Your task to perform on an android device: change alarm snooze length Image 0: 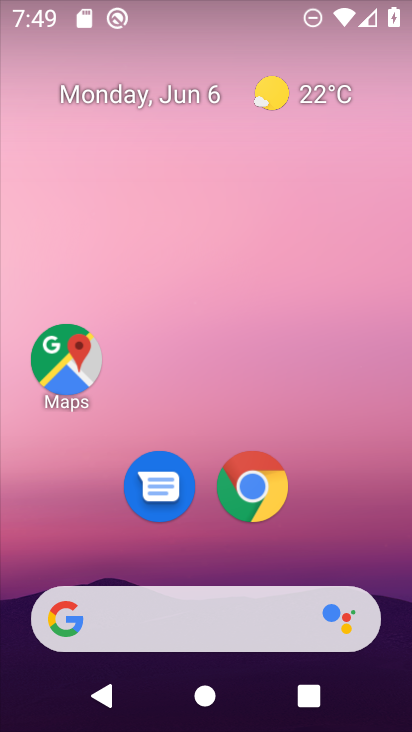
Step 0: drag from (389, 627) to (272, 72)
Your task to perform on an android device: change alarm snooze length Image 1: 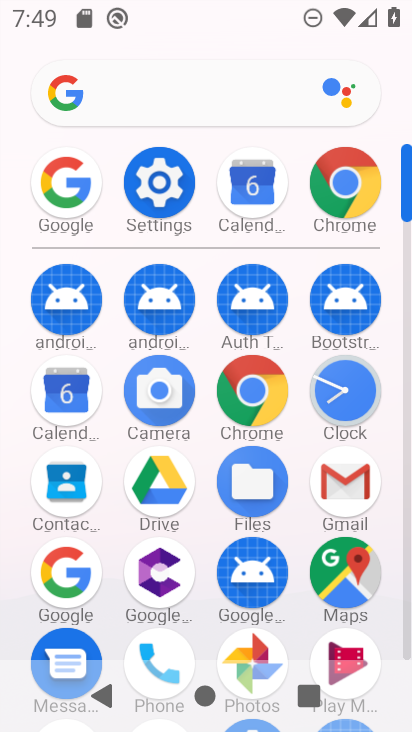
Step 1: click (360, 396)
Your task to perform on an android device: change alarm snooze length Image 2: 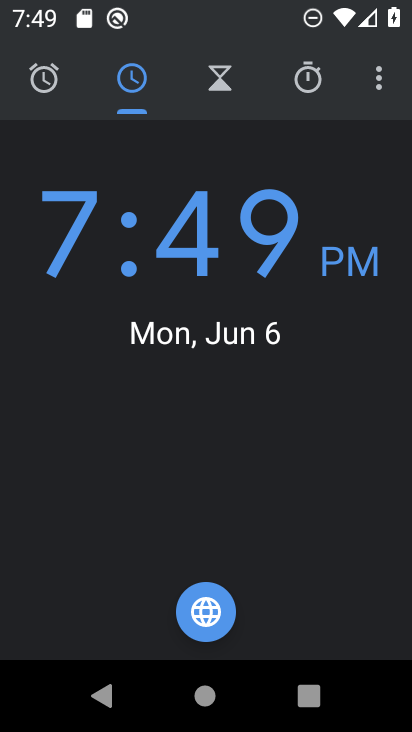
Step 2: click (376, 66)
Your task to perform on an android device: change alarm snooze length Image 3: 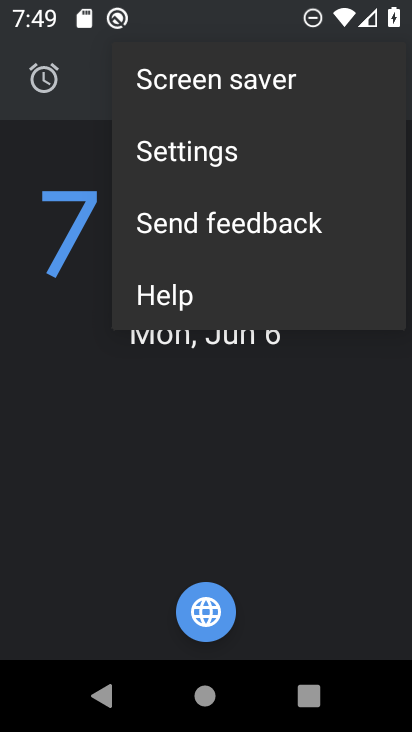
Step 3: click (184, 137)
Your task to perform on an android device: change alarm snooze length Image 4: 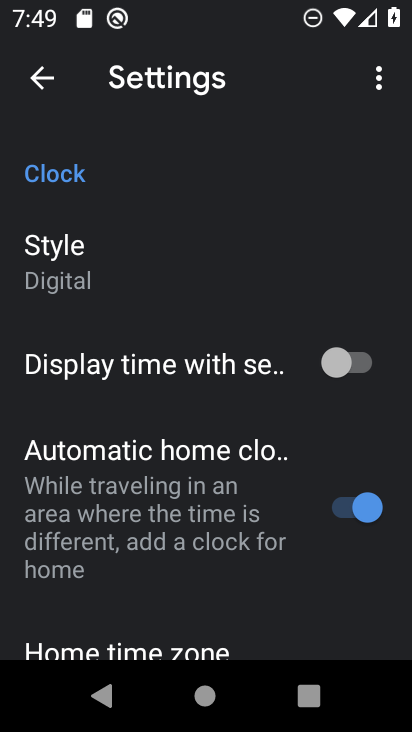
Step 4: drag from (189, 602) to (216, 103)
Your task to perform on an android device: change alarm snooze length Image 5: 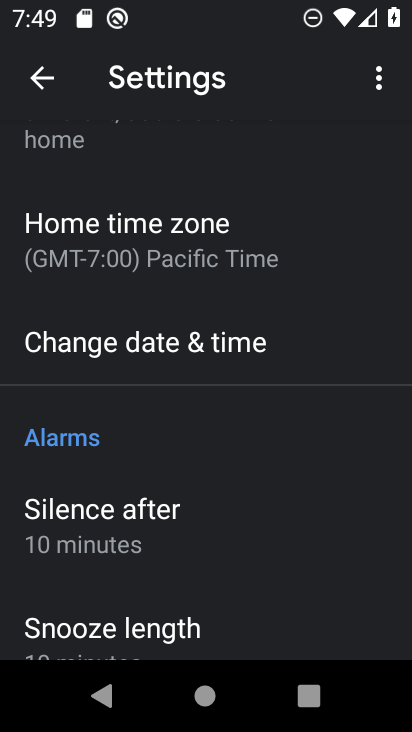
Step 5: click (191, 618)
Your task to perform on an android device: change alarm snooze length Image 6: 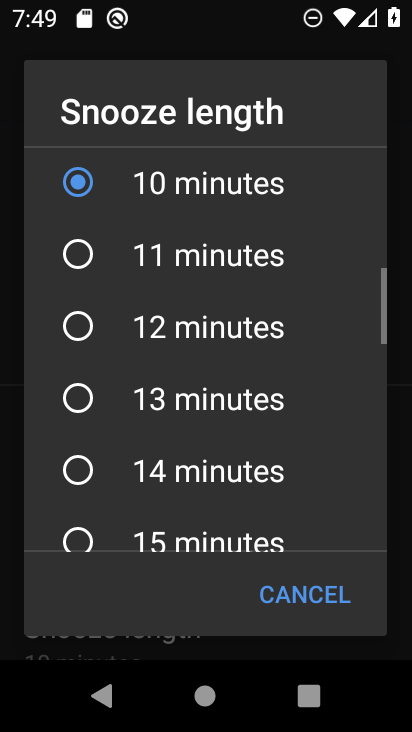
Step 6: click (83, 536)
Your task to perform on an android device: change alarm snooze length Image 7: 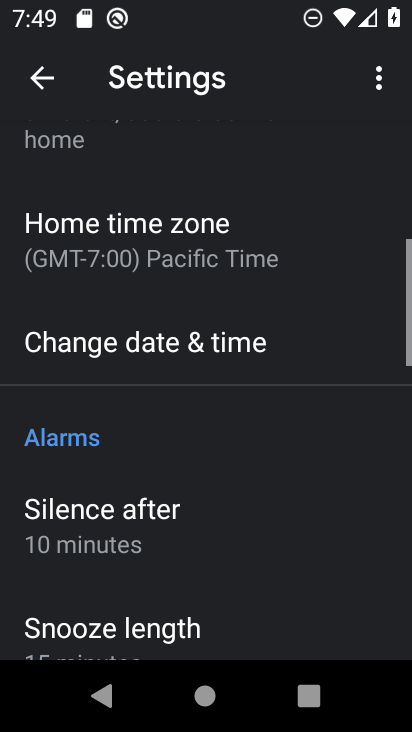
Step 7: task complete